Your task to perform on an android device: snooze an email in the gmail app Image 0: 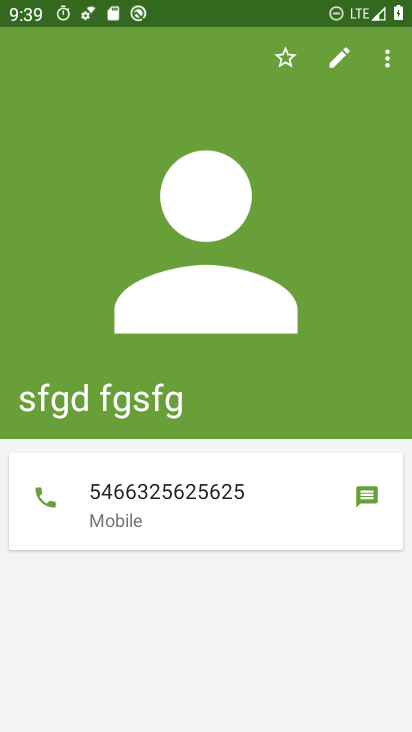
Step 0: press home button
Your task to perform on an android device: snooze an email in the gmail app Image 1: 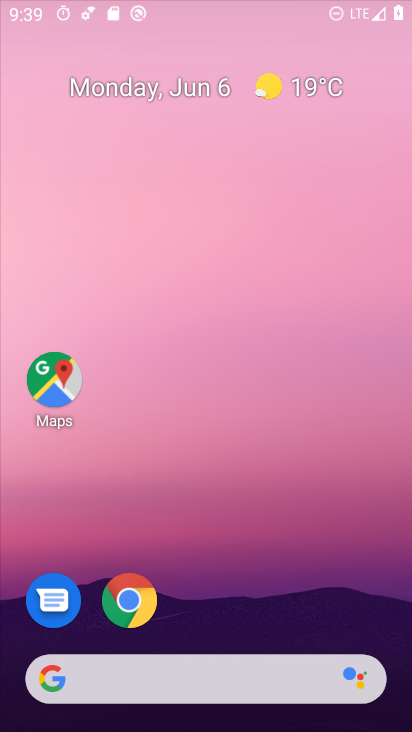
Step 1: drag from (309, 553) to (121, 22)
Your task to perform on an android device: snooze an email in the gmail app Image 2: 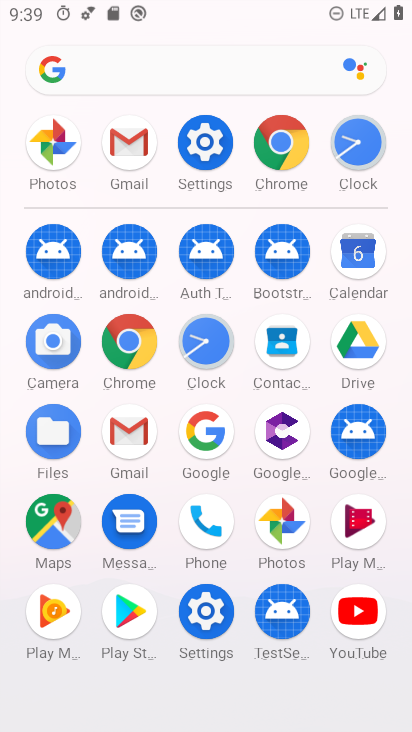
Step 2: click (146, 134)
Your task to perform on an android device: snooze an email in the gmail app Image 3: 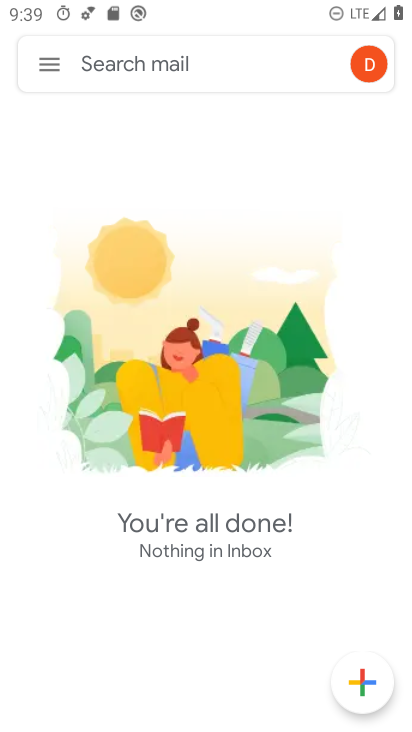
Step 3: click (53, 55)
Your task to perform on an android device: snooze an email in the gmail app Image 4: 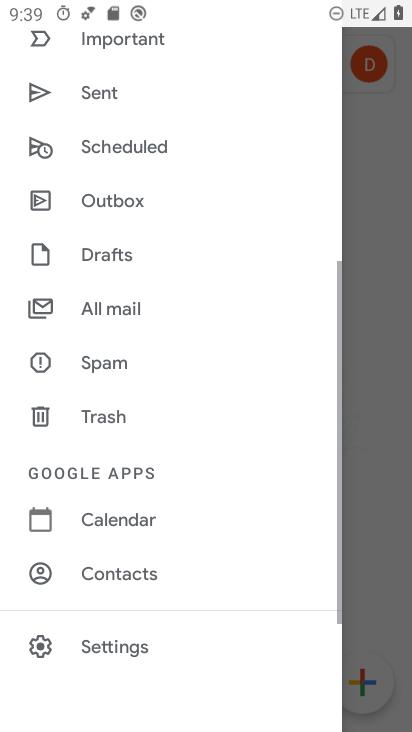
Step 4: drag from (159, 71) to (152, 597)
Your task to perform on an android device: snooze an email in the gmail app Image 5: 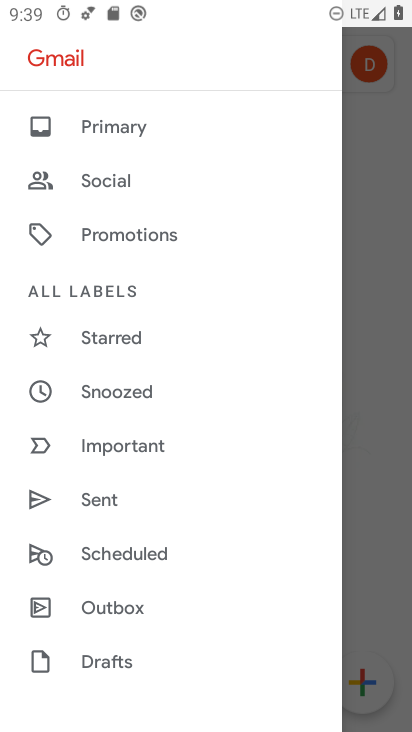
Step 5: click (178, 126)
Your task to perform on an android device: snooze an email in the gmail app Image 6: 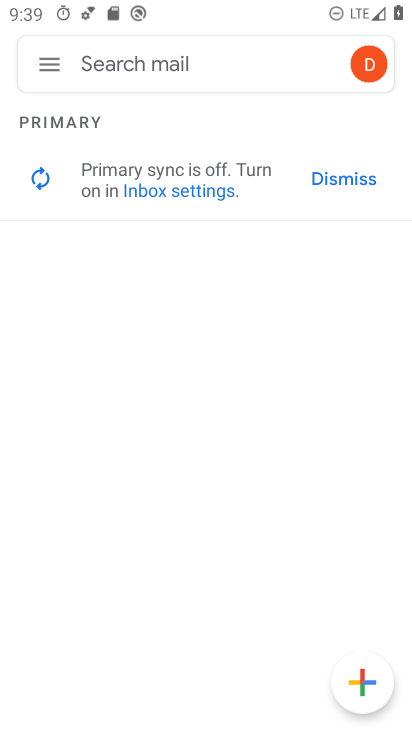
Step 6: task complete